Your task to perform on an android device: turn notification dots off Image 0: 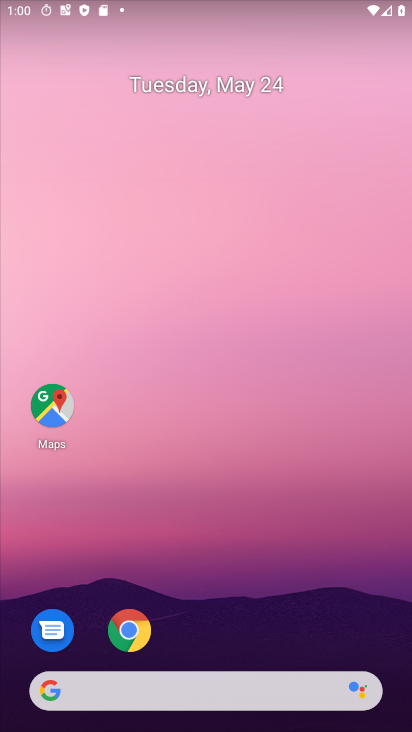
Step 0: drag from (239, 638) to (288, 5)
Your task to perform on an android device: turn notification dots off Image 1: 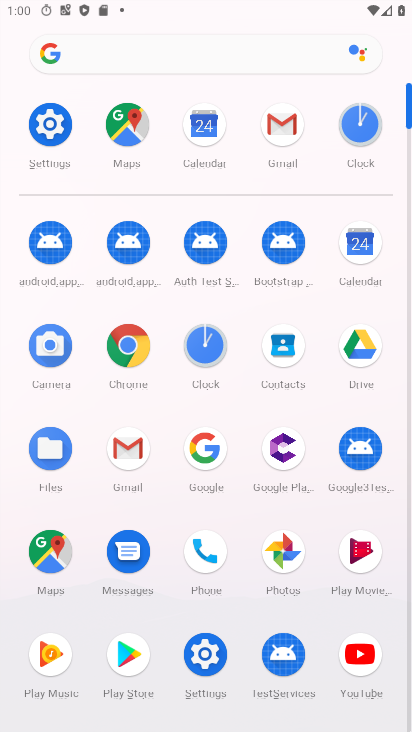
Step 1: click (44, 137)
Your task to perform on an android device: turn notification dots off Image 2: 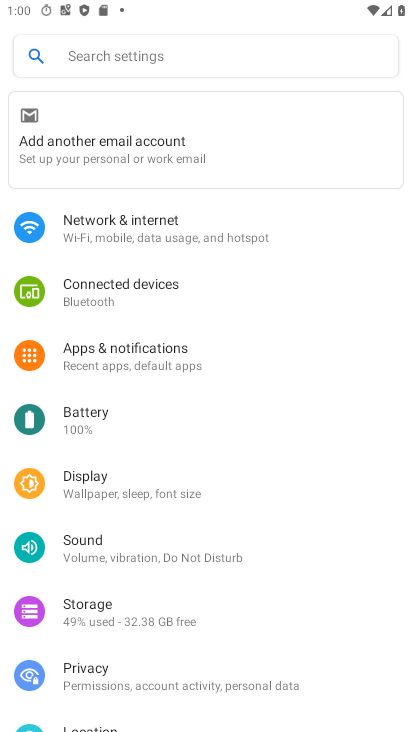
Step 2: click (126, 349)
Your task to perform on an android device: turn notification dots off Image 3: 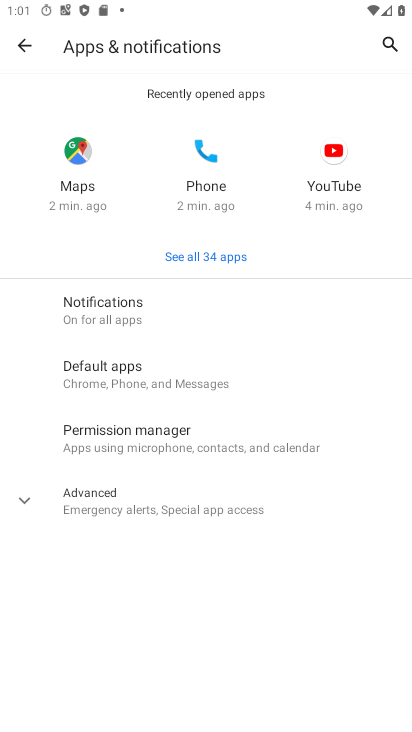
Step 3: click (128, 313)
Your task to perform on an android device: turn notification dots off Image 4: 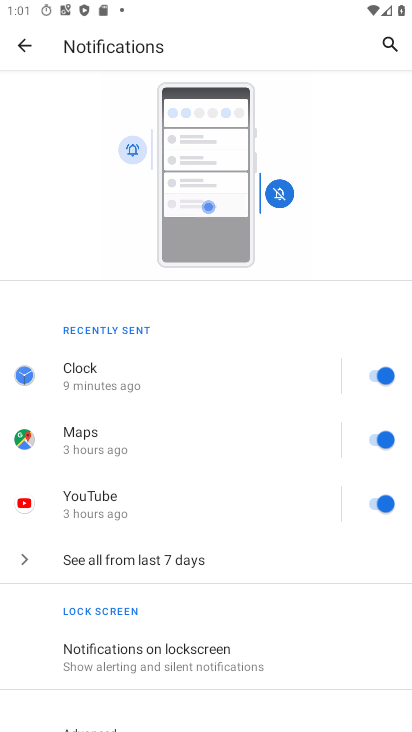
Step 4: drag from (245, 605) to (263, 257)
Your task to perform on an android device: turn notification dots off Image 5: 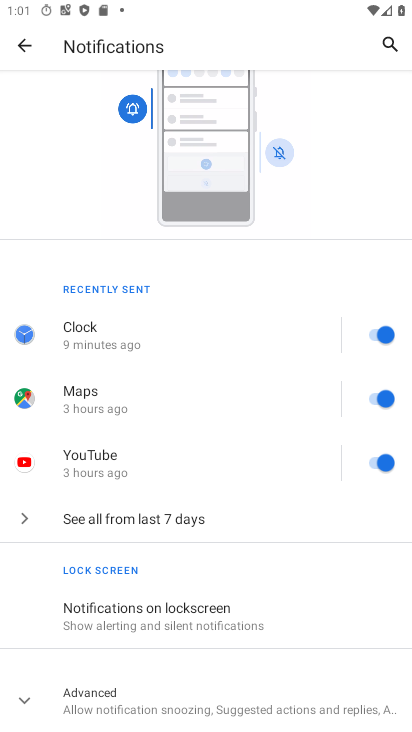
Step 5: click (20, 707)
Your task to perform on an android device: turn notification dots off Image 6: 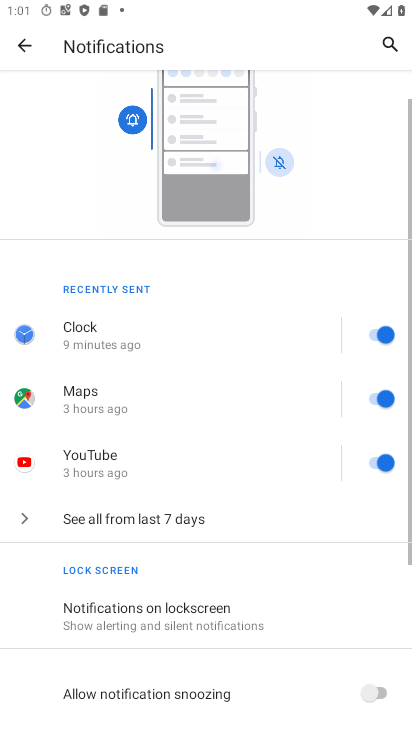
Step 6: task complete